Your task to perform on an android device: delete location history Image 0: 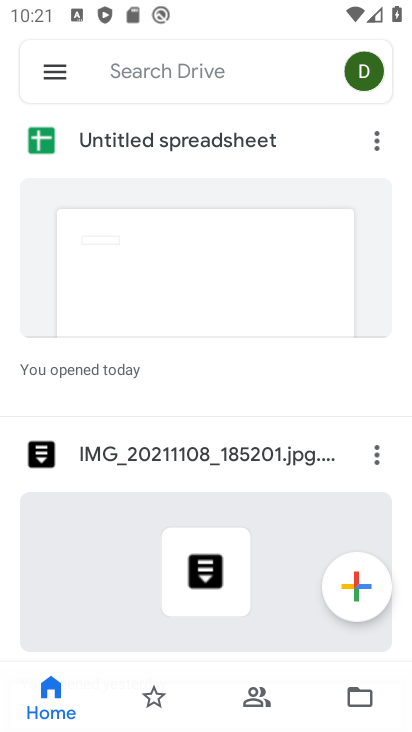
Step 0: press home button
Your task to perform on an android device: delete location history Image 1: 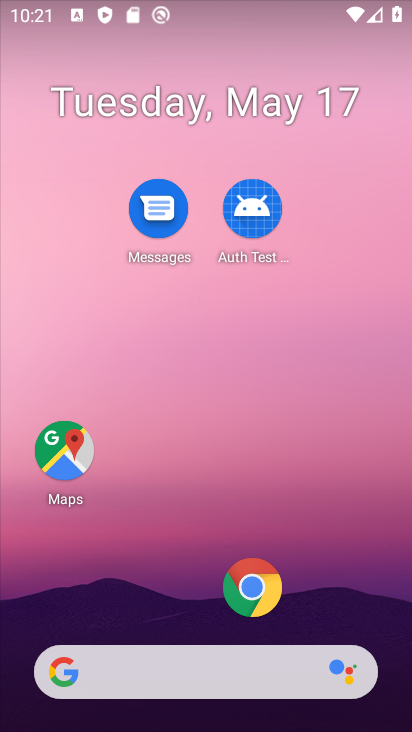
Step 1: drag from (227, 468) to (43, 18)
Your task to perform on an android device: delete location history Image 2: 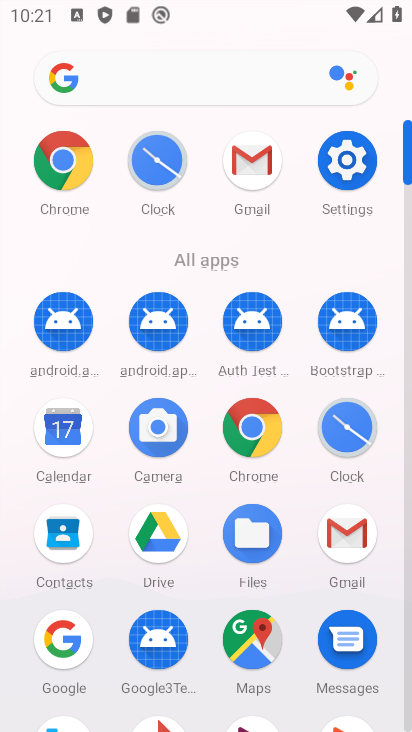
Step 2: click (346, 156)
Your task to perform on an android device: delete location history Image 3: 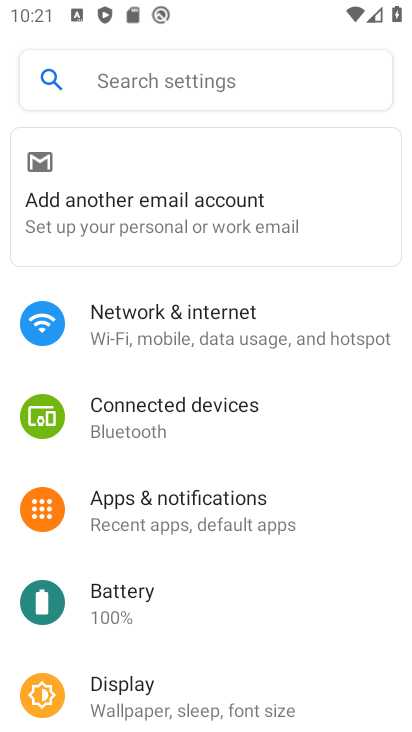
Step 3: drag from (288, 669) to (190, 194)
Your task to perform on an android device: delete location history Image 4: 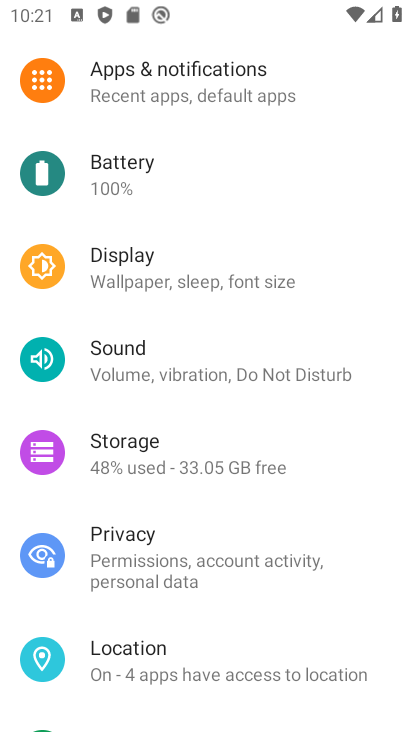
Step 4: click (183, 641)
Your task to perform on an android device: delete location history Image 5: 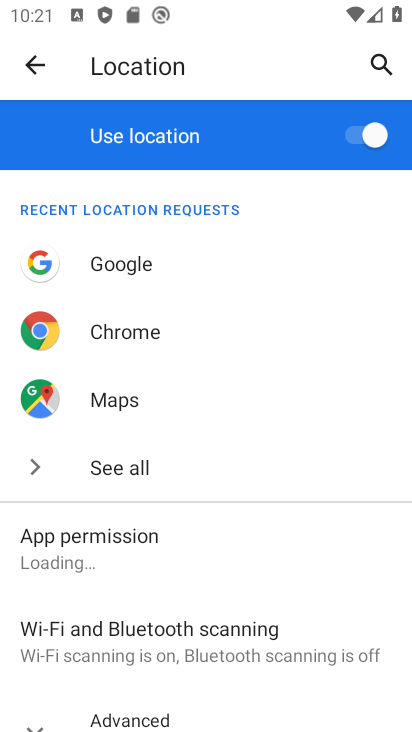
Step 5: drag from (268, 579) to (25, 64)
Your task to perform on an android device: delete location history Image 6: 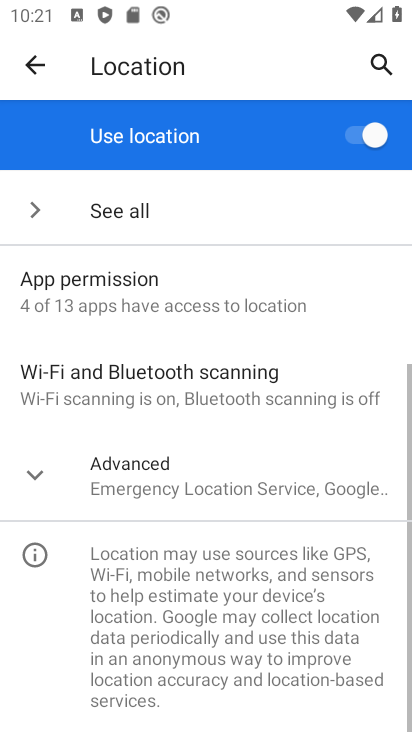
Step 6: click (129, 494)
Your task to perform on an android device: delete location history Image 7: 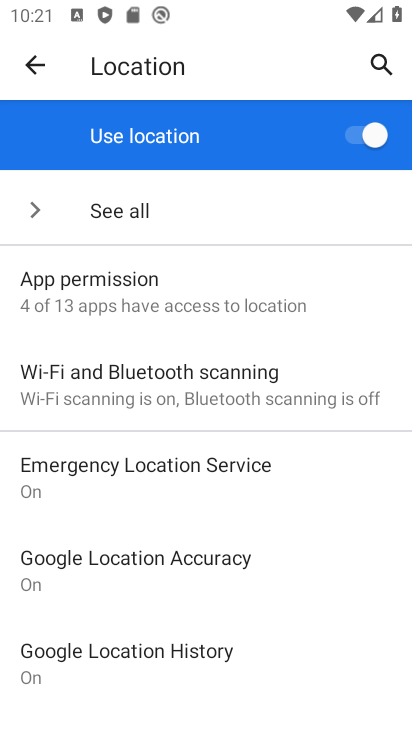
Step 7: click (176, 659)
Your task to perform on an android device: delete location history Image 8: 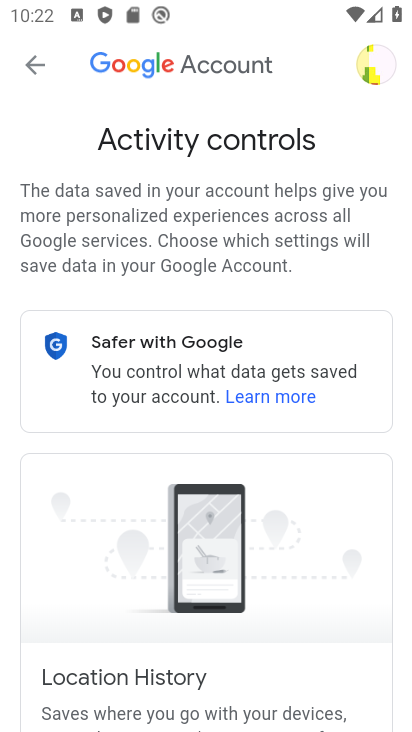
Step 8: drag from (107, 632) to (68, 366)
Your task to perform on an android device: delete location history Image 9: 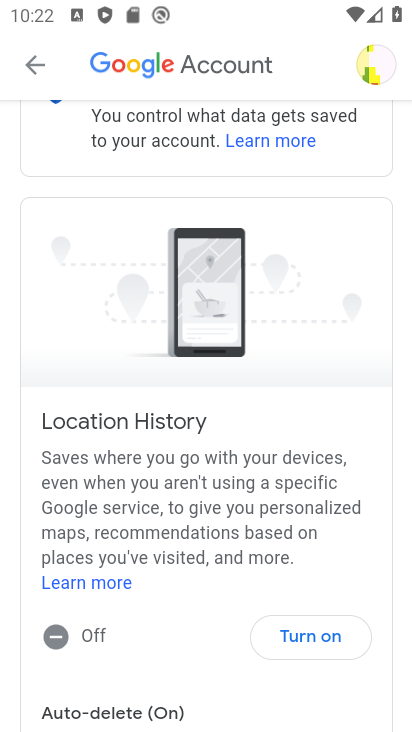
Step 9: drag from (139, 659) to (112, 495)
Your task to perform on an android device: delete location history Image 10: 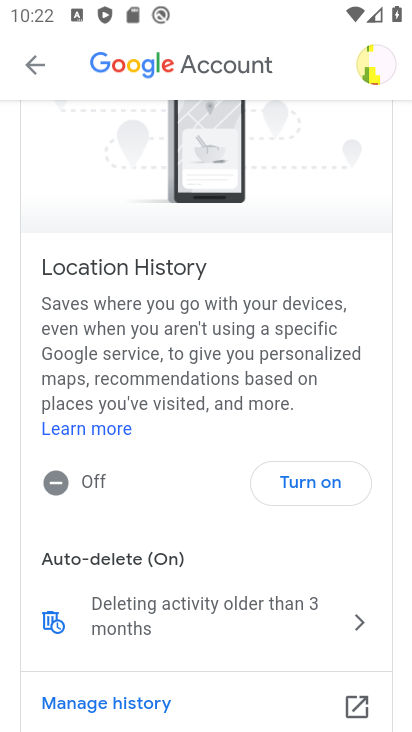
Step 10: click (236, 606)
Your task to perform on an android device: delete location history Image 11: 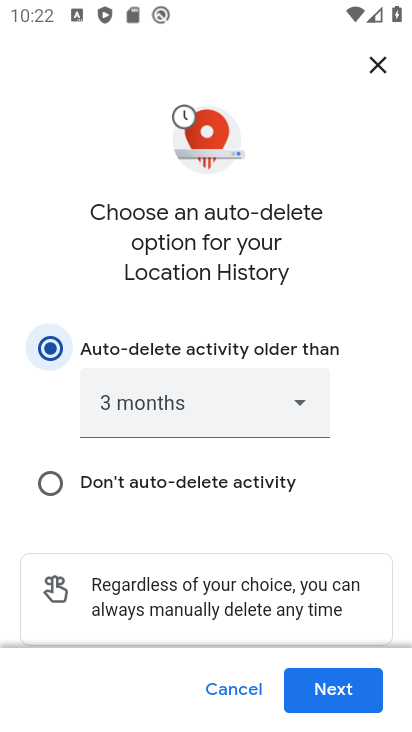
Step 11: click (184, 422)
Your task to perform on an android device: delete location history Image 12: 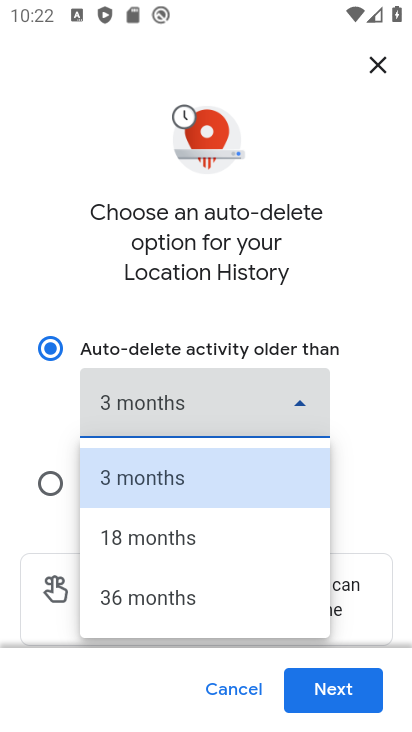
Step 12: click (154, 543)
Your task to perform on an android device: delete location history Image 13: 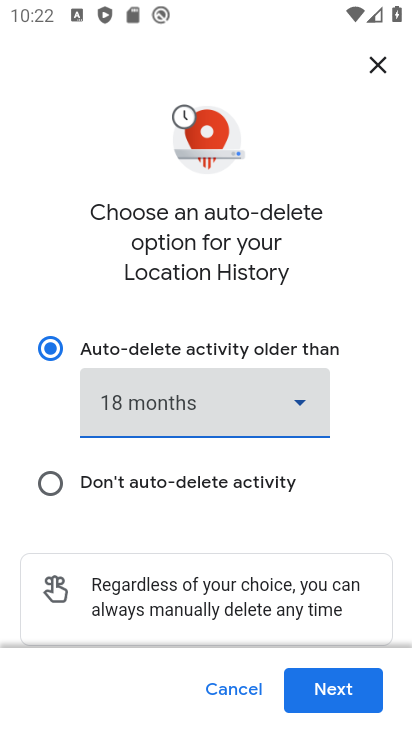
Step 13: click (339, 682)
Your task to perform on an android device: delete location history Image 14: 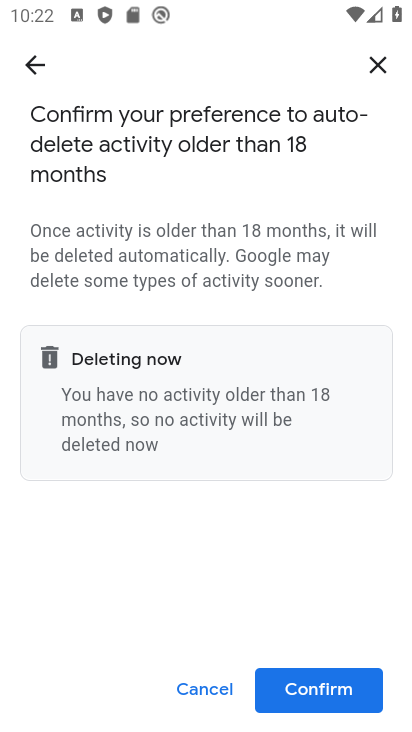
Step 14: click (316, 672)
Your task to perform on an android device: delete location history Image 15: 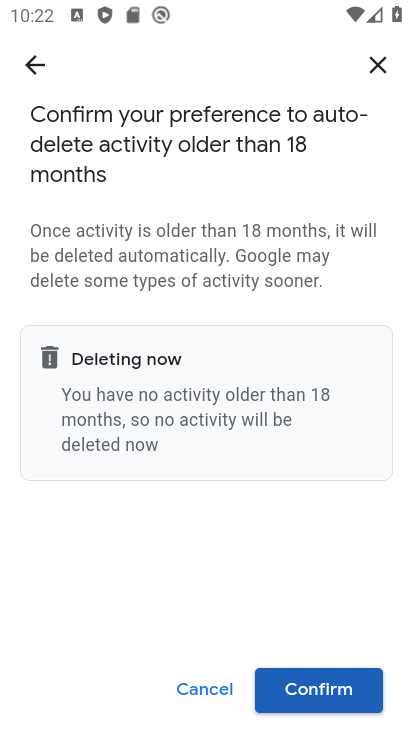
Step 15: click (313, 677)
Your task to perform on an android device: delete location history Image 16: 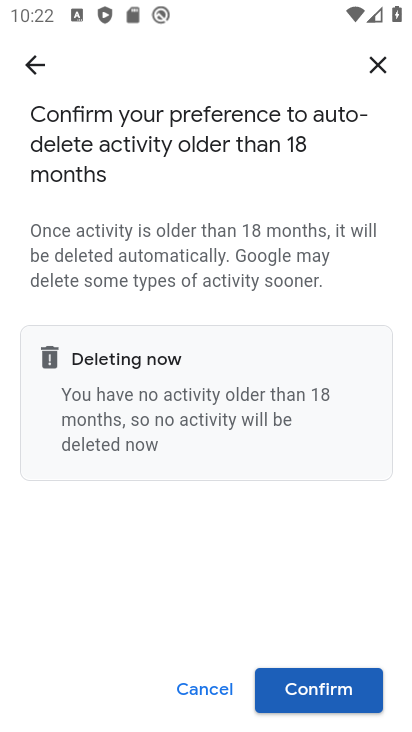
Step 16: click (323, 681)
Your task to perform on an android device: delete location history Image 17: 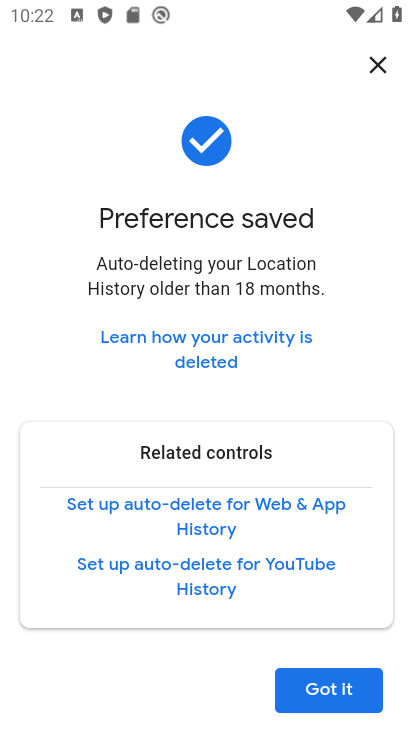
Step 17: click (331, 684)
Your task to perform on an android device: delete location history Image 18: 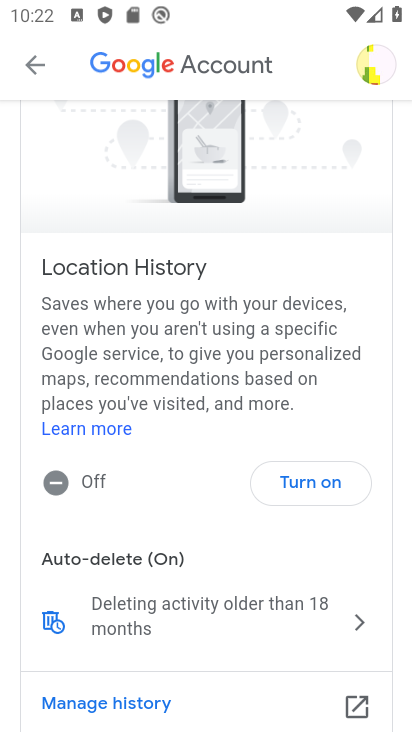
Step 18: task complete